Your task to perform on an android device: Open settings on Google Maps Image 0: 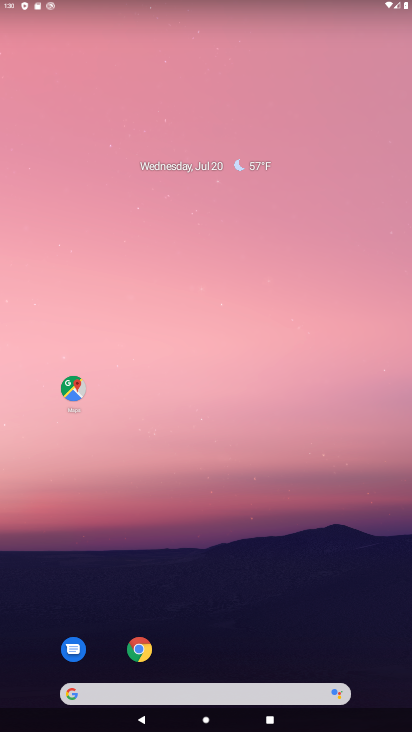
Step 0: click (68, 382)
Your task to perform on an android device: Open settings on Google Maps Image 1: 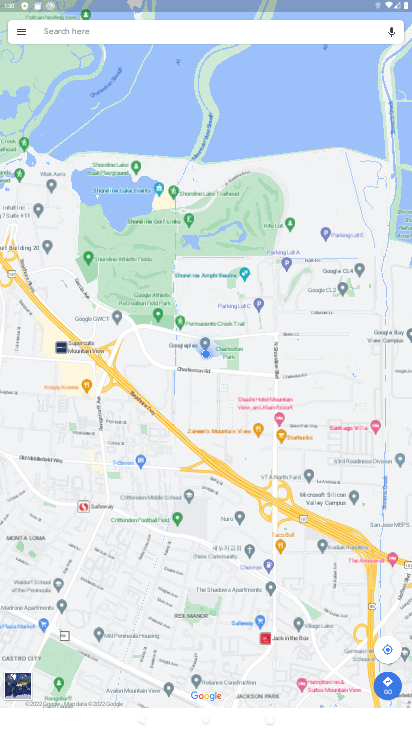
Step 1: click (22, 36)
Your task to perform on an android device: Open settings on Google Maps Image 2: 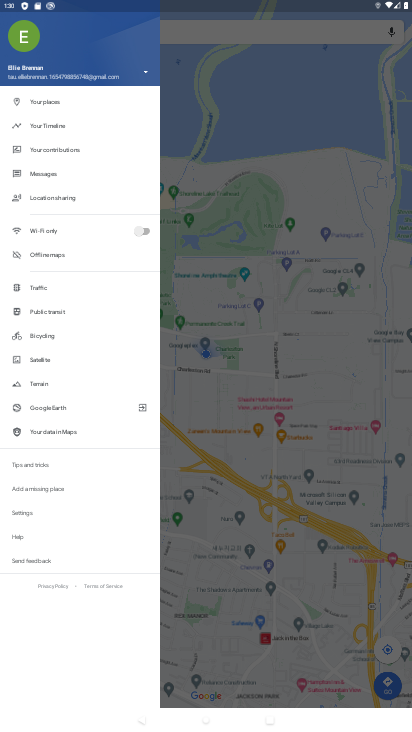
Step 2: click (51, 513)
Your task to perform on an android device: Open settings on Google Maps Image 3: 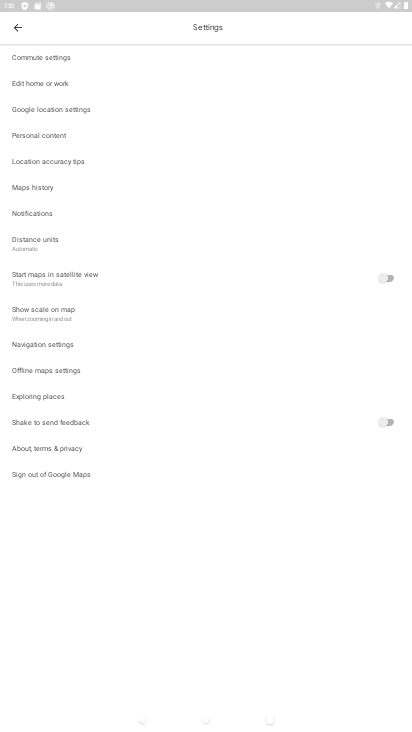
Step 3: task complete